Your task to perform on an android device: Open ESPN.com Image 0: 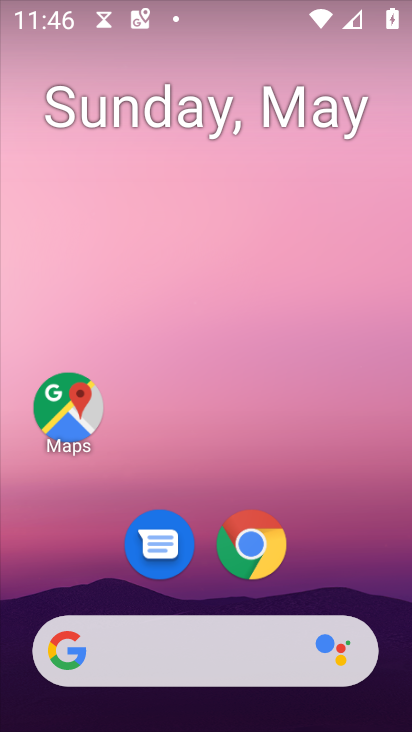
Step 0: drag from (311, 552) to (310, 241)
Your task to perform on an android device: Open ESPN.com Image 1: 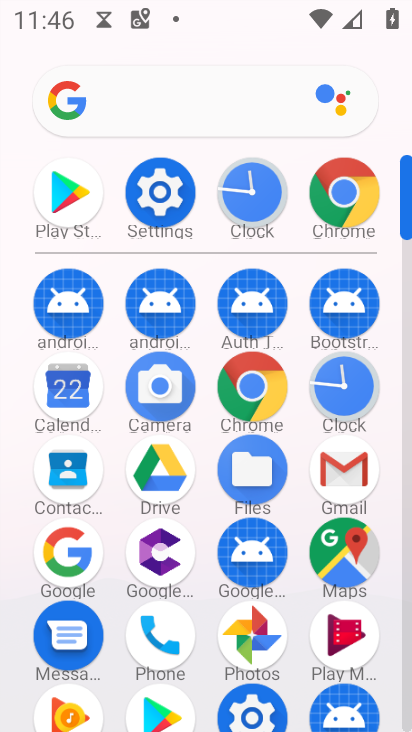
Step 1: click (328, 185)
Your task to perform on an android device: Open ESPN.com Image 2: 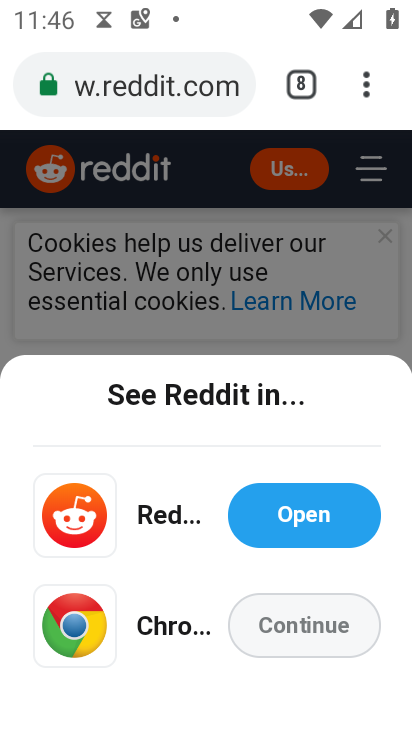
Step 2: click (367, 68)
Your task to perform on an android device: Open ESPN.com Image 3: 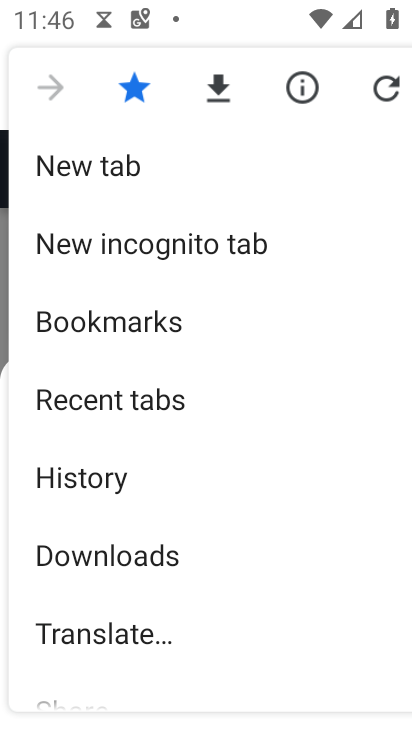
Step 3: click (78, 165)
Your task to perform on an android device: Open ESPN.com Image 4: 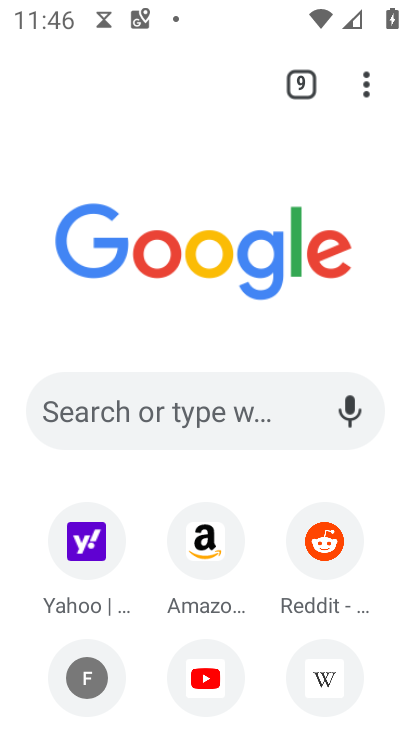
Step 4: click (125, 396)
Your task to perform on an android device: Open ESPN.com Image 5: 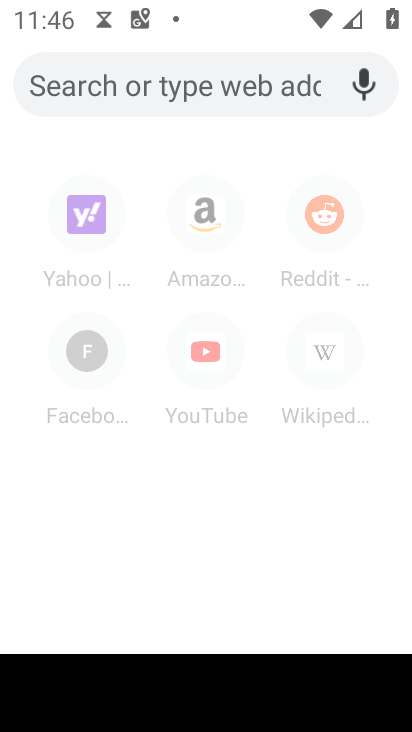
Step 5: type "ESPN.com"
Your task to perform on an android device: Open ESPN.com Image 6: 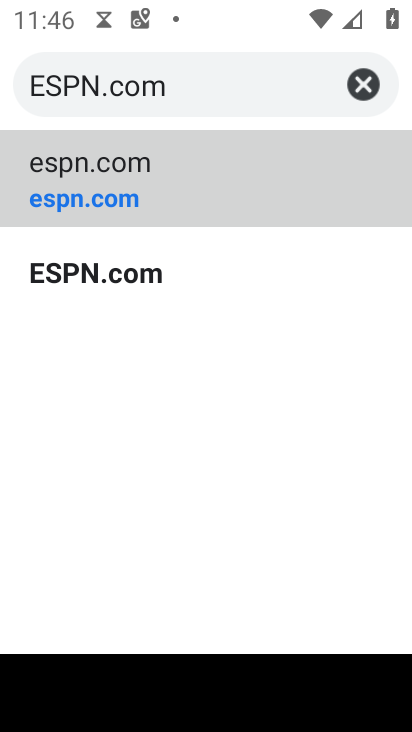
Step 6: click (121, 173)
Your task to perform on an android device: Open ESPN.com Image 7: 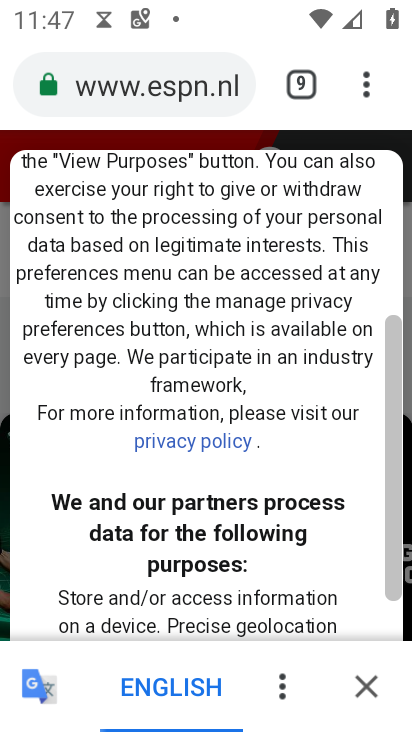
Step 7: task complete